Your task to perform on an android device: Open Google Chrome and click the shortcut for Amazon.com Image 0: 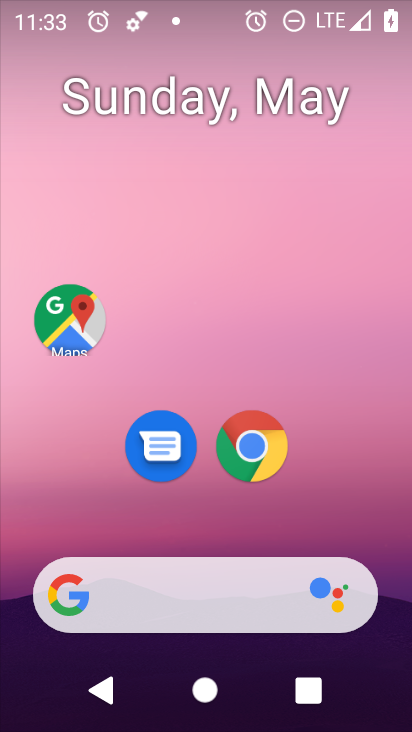
Step 0: drag from (342, 405) to (249, 20)
Your task to perform on an android device: Open Google Chrome and click the shortcut for Amazon.com Image 1: 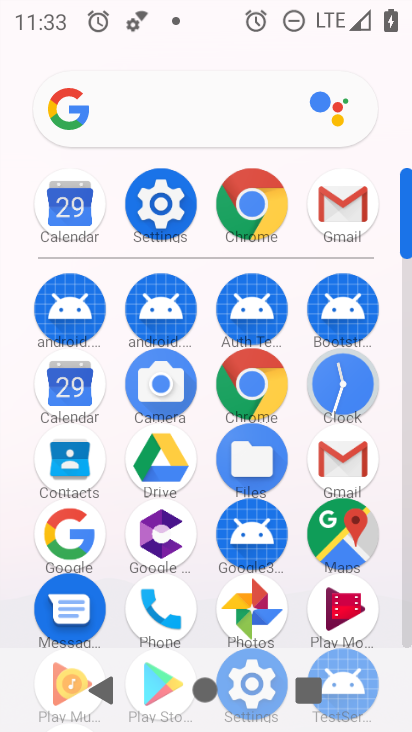
Step 1: drag from (23, 316) to (25, 240)
Your task to perform on an android device: Open Google Chrome and click the shortcut for Amazon.com Image 2: 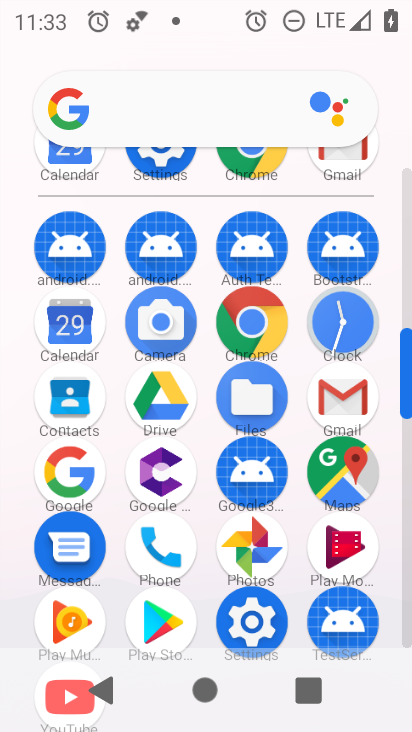
Step 2: click (250, 317)
Your task to perform on an android device: Open Google Chrome and click the shortcut for Amazon.com Image 3: 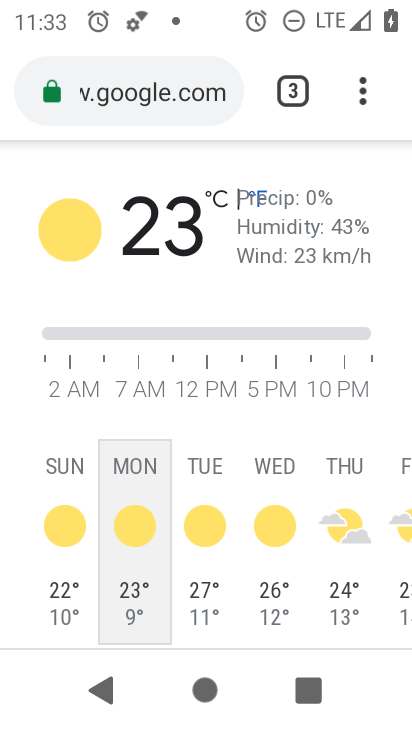
Step 3: click (143, 78)
Your task to perform on an android device: Open Google Chrome and click the shortcut for Amazon.com Image 4: 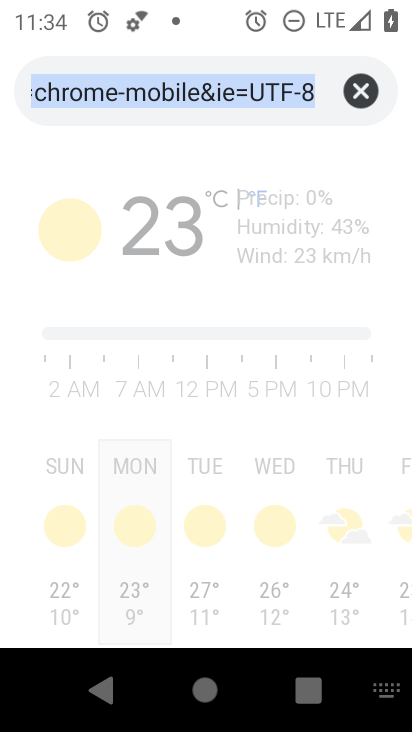
Step 4: click (354, 84)
Your task to perform on an android device: Open Google Chrome and click the shortcut for Amazon.com Image 5: 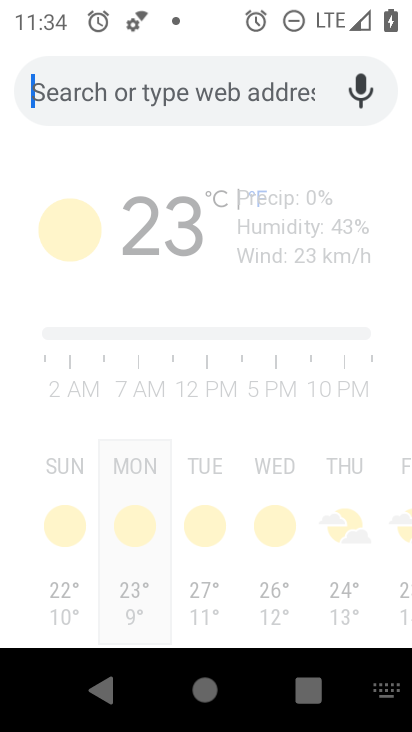
Step 5: type "Amazon.com"
Your task to perform on an android device: Open Google Chrome and click the shortcut for Amazon.com Image 6: 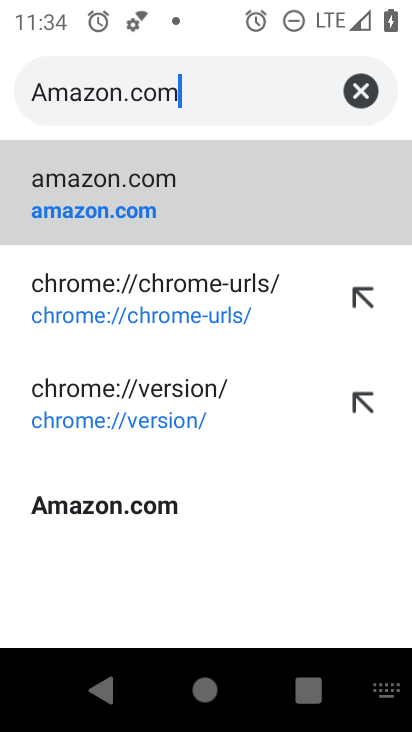
Step 6: type ""
Your task to perform on an android device: Open Google Chrome and click the shortcut for Amazon.com Image 7: 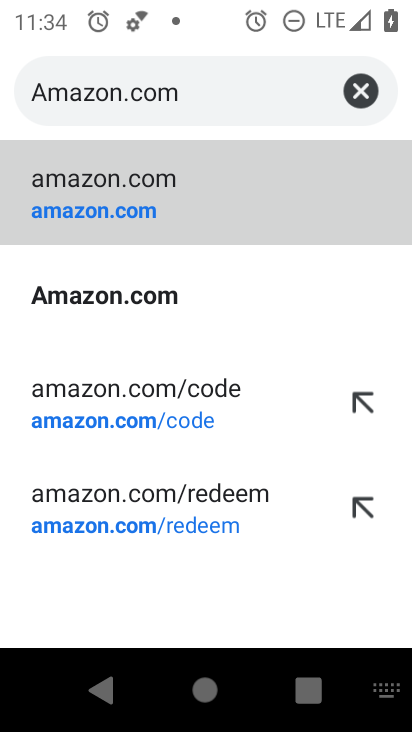
Step 7: click (182, 184)
Your task to perform on an android device: Open Google Chrome and click the shortcut for Amazon.com Image 8: 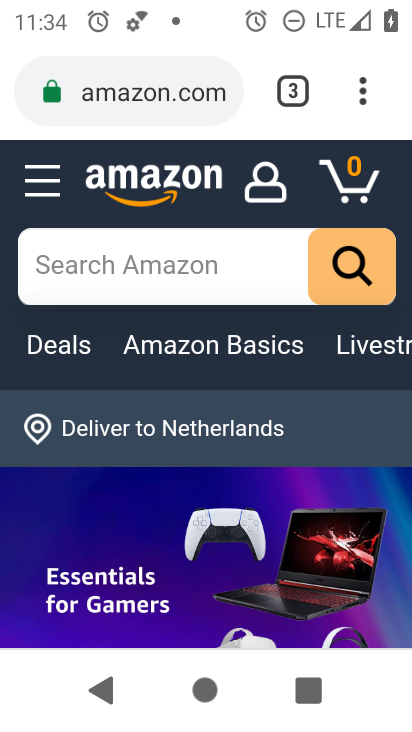
Step 8: task complete